Your task to perform on an android device: Go to notification settings Image 0: 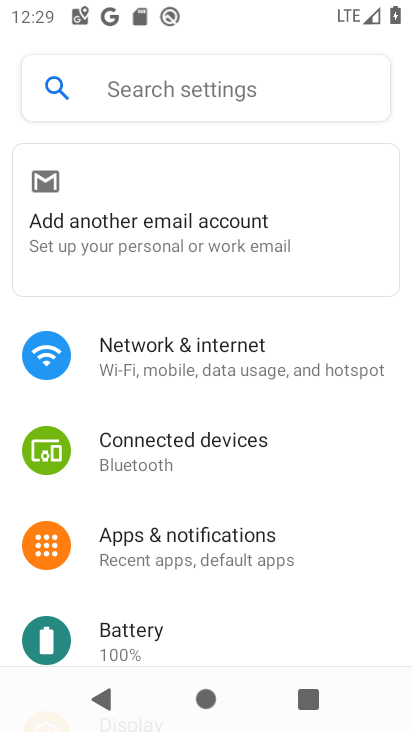
Step 0: click (198, 539)
Your task to perform on an android device: Go to notification settings Image 1: 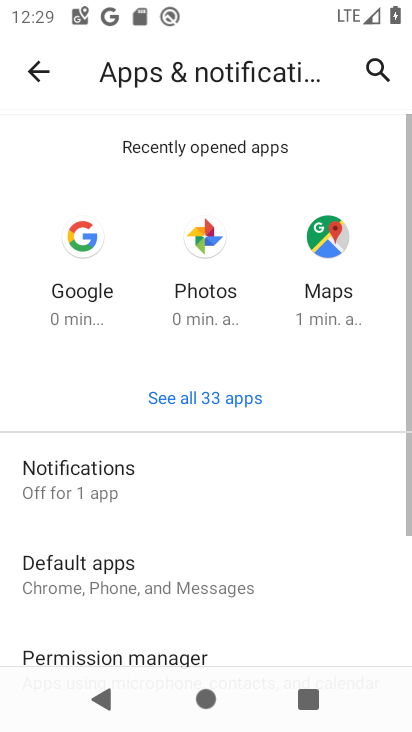
Step 1: click (76, 474)
Your task to perform on an android device: Go to notification settings Image 2: 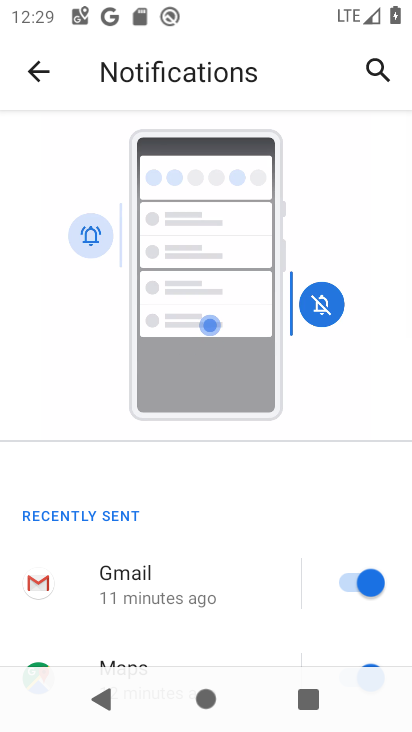
Step 2: task complete